Your task to perform on an android device: Open calendar and show me the fourth week of next month Image 0: 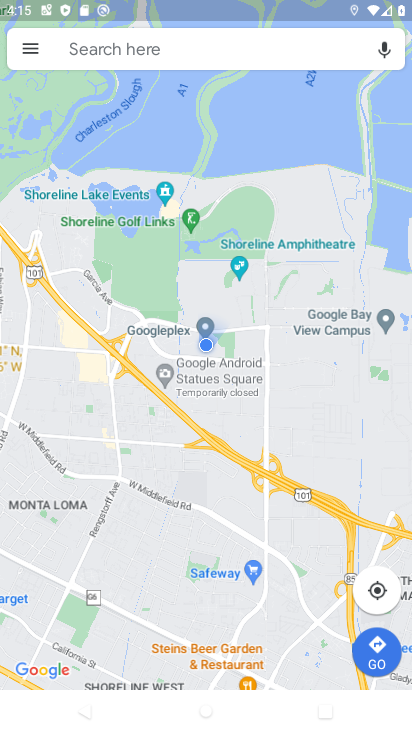
Step 0: press home button
Your task to perform on an android device: Open calendar and show me the fourth week of next month Image 1: 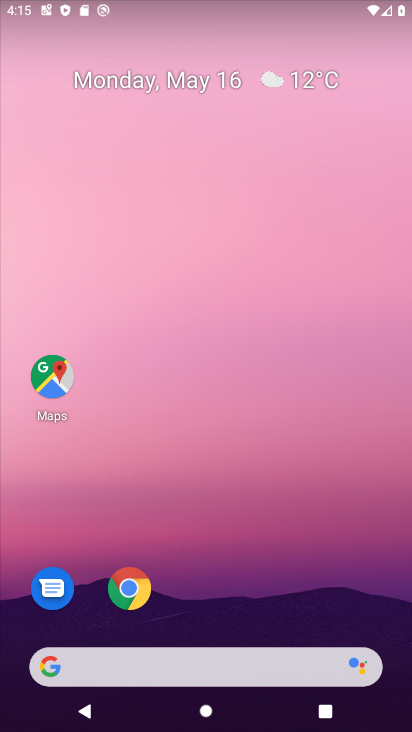
Step 1: click (196, 83)
Your task to perform on an android device: Open calendar and show me the fourth week of next month Image 2: 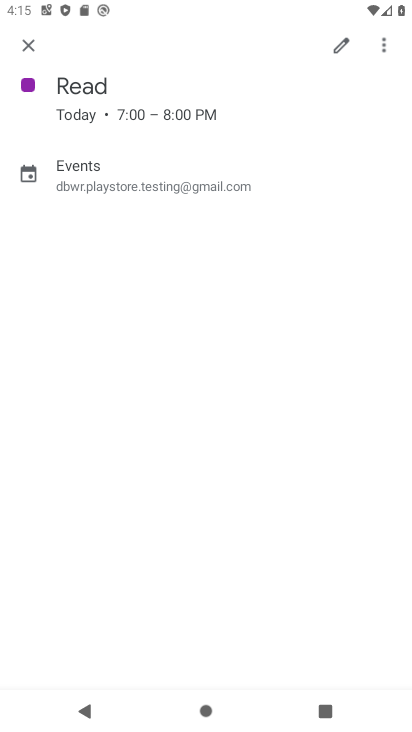
Step 2: click (23, 46)
Your task to perform on an android device: Open calendar and show me the fourth week of next month Image 3: 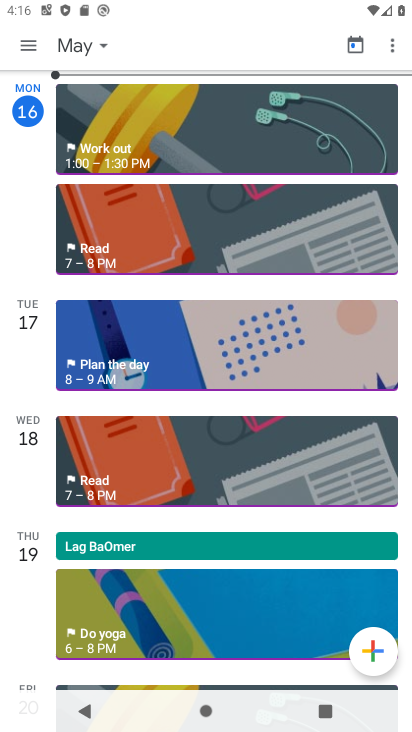
Step 3: click (31, 52)
Your task to perform on an android device: Open calendar and show me the fourth week of next month Image 4: 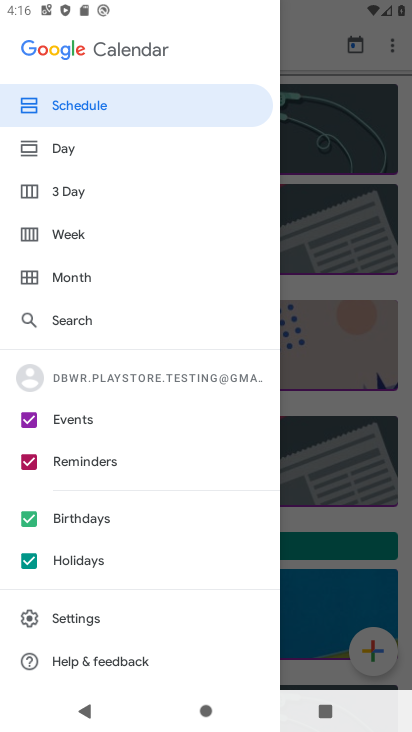
Step 4: click (55, 235)
Your task to perform on an android device: Open calendar and show me the fourth week of next month Image 5: 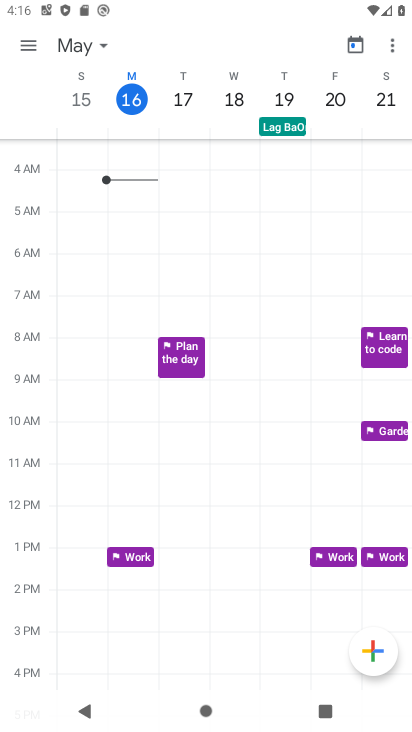
Step 5: click (102, 46)
Your task to perform on an android device: Open calendar and show me the fourth week of next month Image 6: 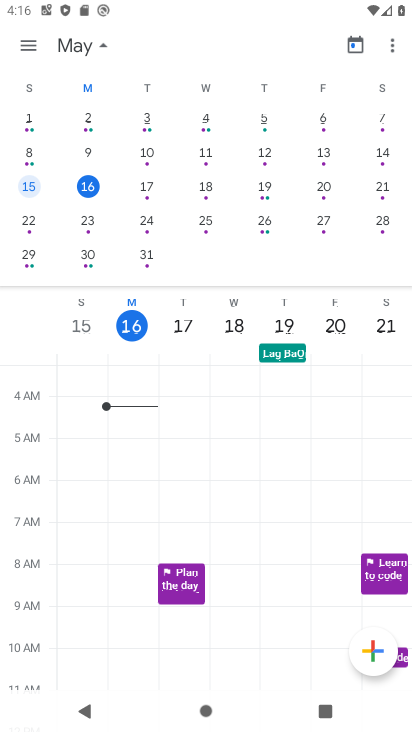
Step 6: drag from (352, 250) to (62, 240)
Your task to perform on an android device: Open calendar and show me the fourth week of next month Image 7: 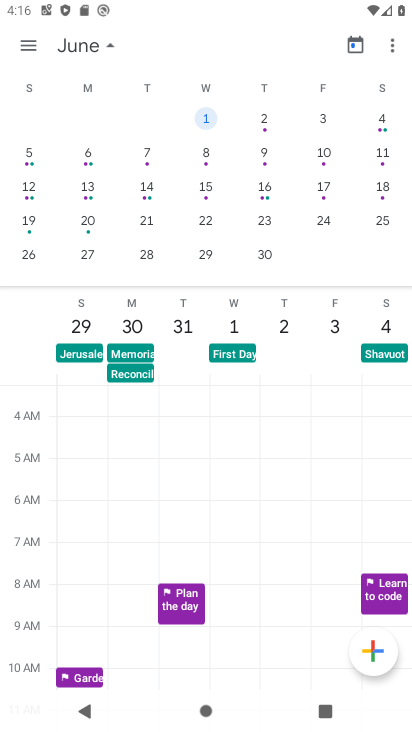
Step 7: click (200, 221)
Your task to perform on an android device: Open calendar and show me the fourth week of next month Image 8: 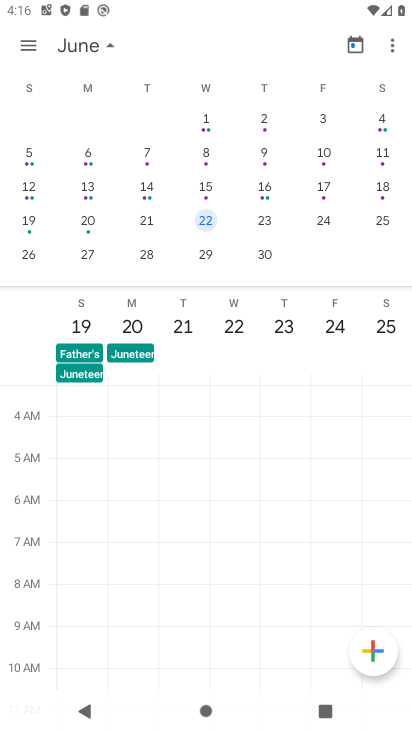
Step 8: task complete